Your task to perform on an android device: turn off location Image 0: 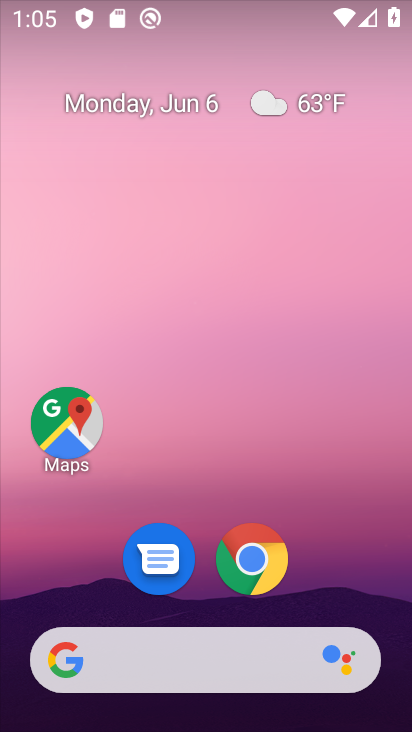
Step 0: drag from (338, 549) to (357, 84)
Your task to perform on an android device: turn off location Image 1: 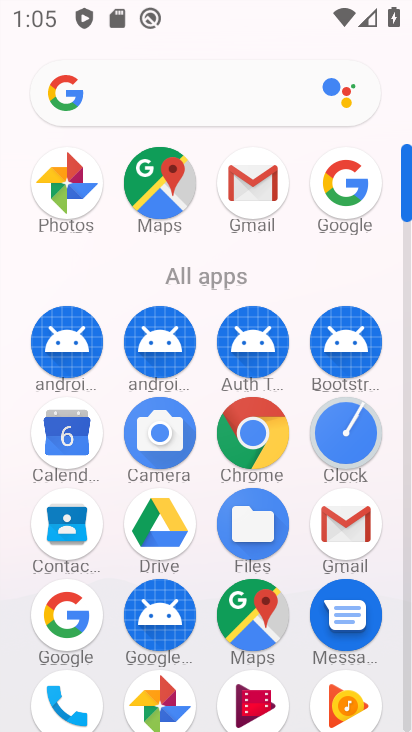
Step 1: drag from (101, 548) to (176, 250)
Your task to perform on an android device: turn off location Image 2: 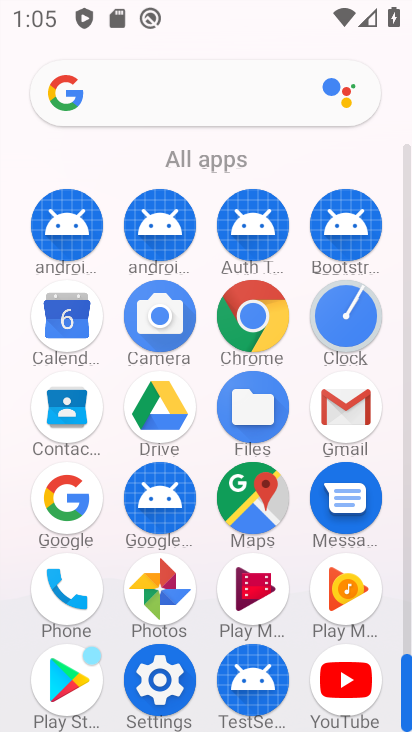
Step 2: click (158, 672)
Your task to perform on an android device: turn off location Image 3: 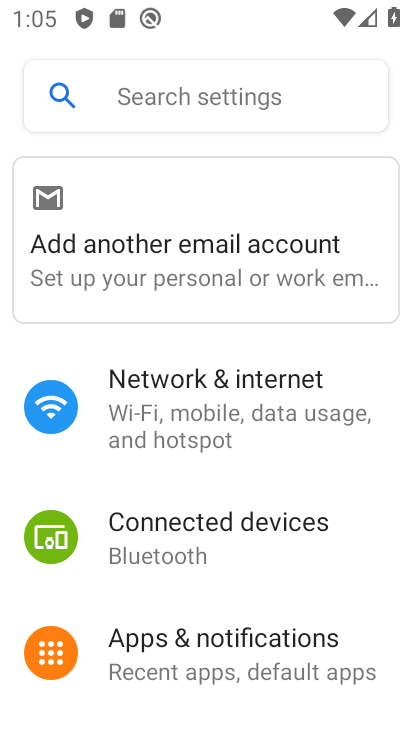
Step 3: drag from (168, 656) to (227, 191)
Your task to perform on an android device: turn off location Image 4: 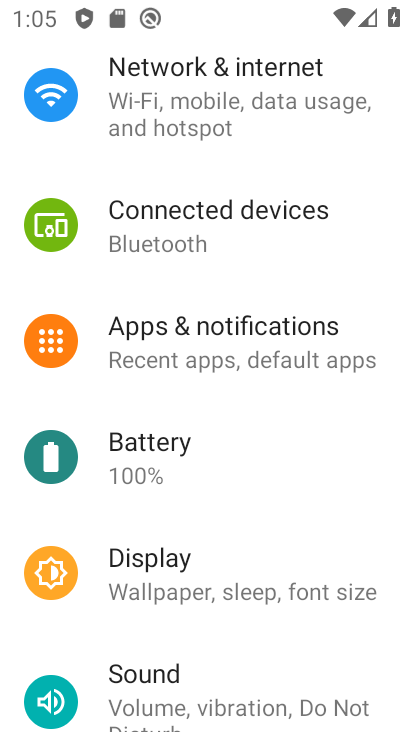
Step 4: drag from (249, 429) to (266, 136)
Your task to perform on an android device: turn off location Image 5: 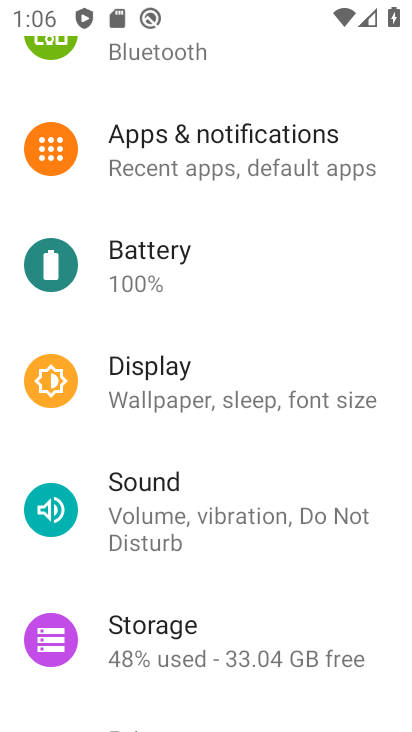
Step 5: drag from (221, 617) to (237, 158)
Your task to perform on an android device: turn off location Image 6: 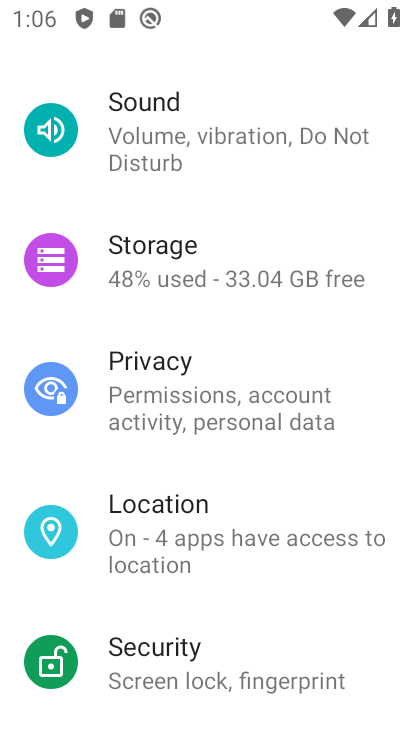
Step 6: click (209, 524)
Your task to perform on an android device: turn off location Image 7: 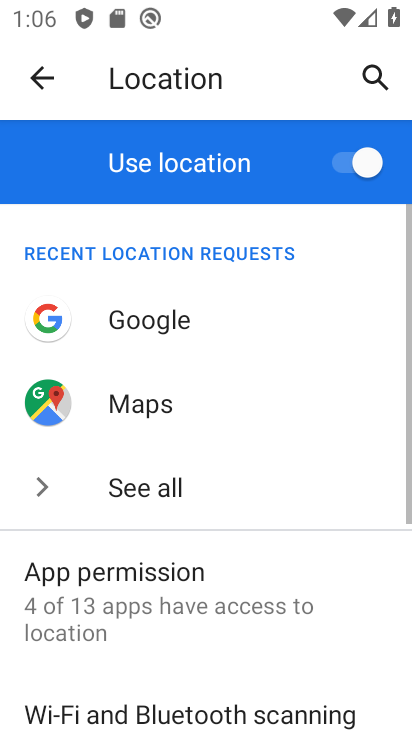
Step 7: click (367, 173)
Your task to perform on an android device: turn off location Image 8: 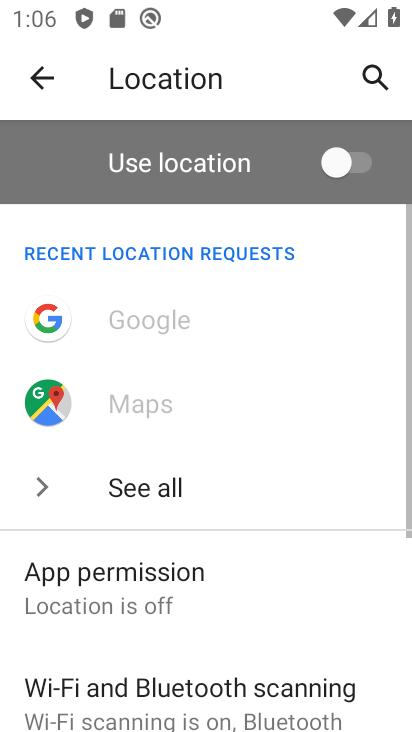
Step 8: task complete